Your task to perform on an android device: Open Amazon Image 0: 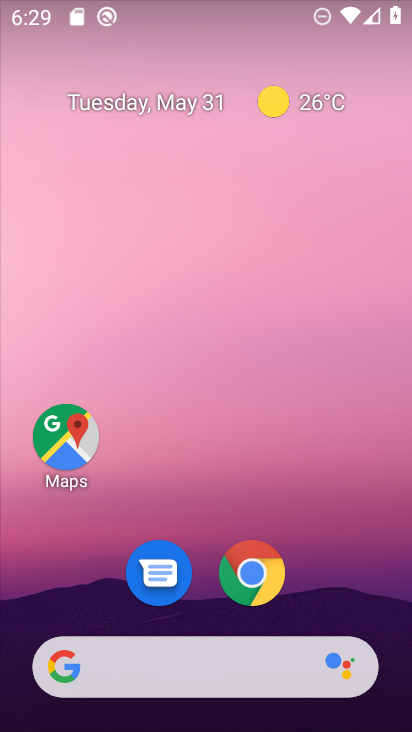
Step 0: drag from (398, 614) to (352, 6)
Your task to perform on an android device: Open Amazon Image 1: 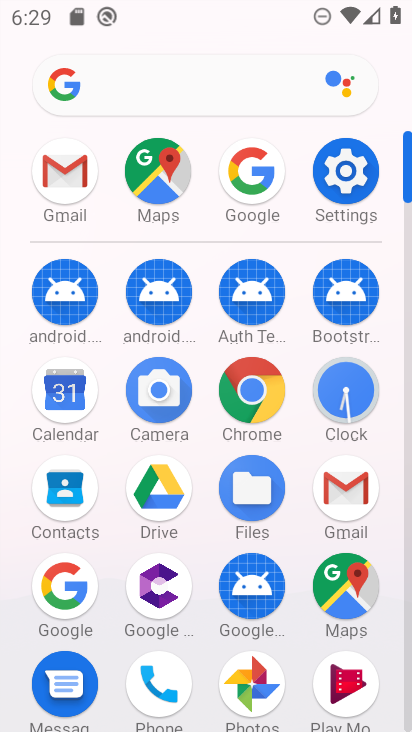
Step 1: click (41, 588)
Your task to perform on an android device: Open Amazon Image 2: 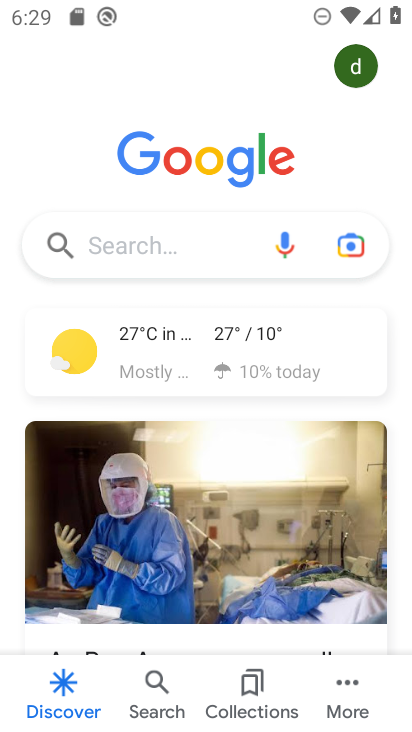
Step 2: click (172, 241)
Your task to perform on an android device: Open Amazon Image 3: 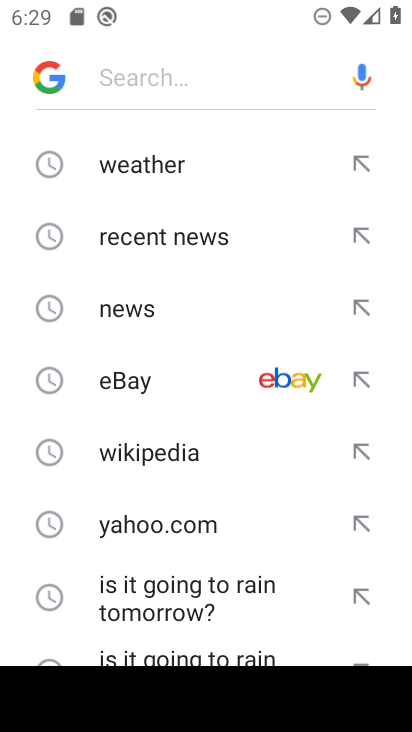
Step 3: drag from (154, 601) to (175, 126)
Your task to perform on an android device: Open Amazon Image 4: 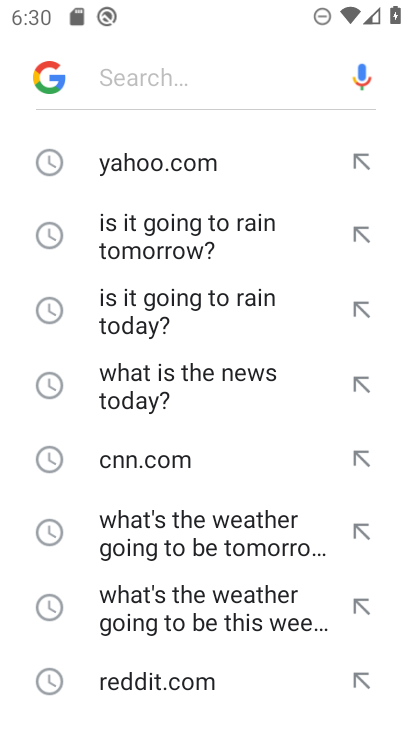
Step 4: drag from (130, 616) to (182, 119)
Your task to perform on an android device: Open Amazon Image 5: 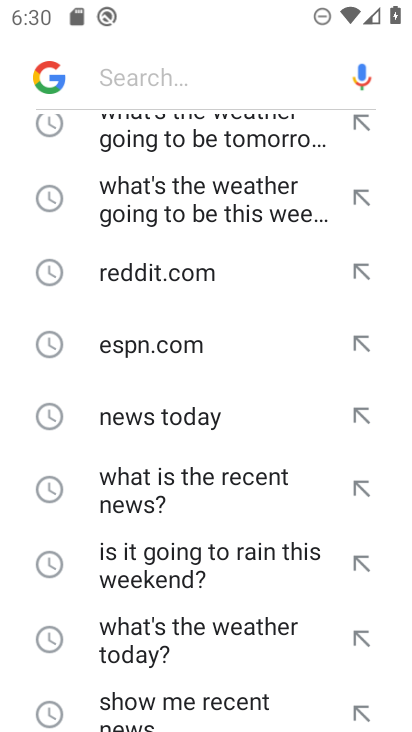
Step 5: drag from (170, 625) to (198, 93)
Your task to perform on an android device: Open Amazon Image 6: 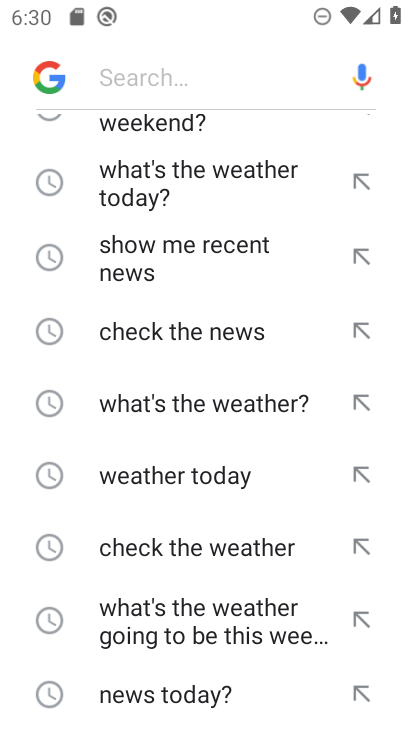
Step 6: drag from (176, 658) to (242, 135)
Your task to perform on an android device: Open Amazon Image 7: 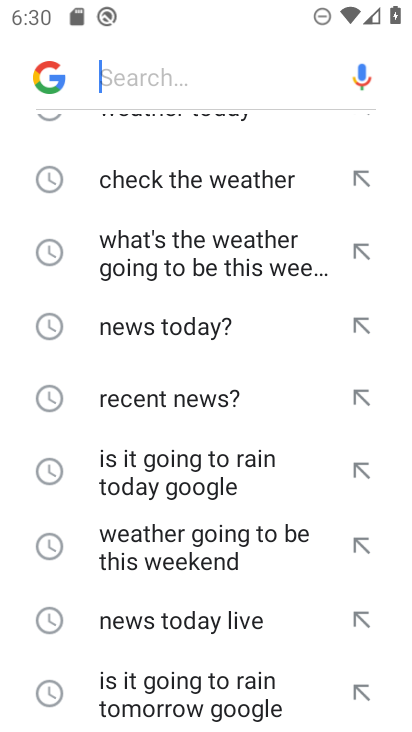
Step 7: drag from (188, 643) to (172, 141)
Your task to perform on an android device: Open Amazon Image 8: 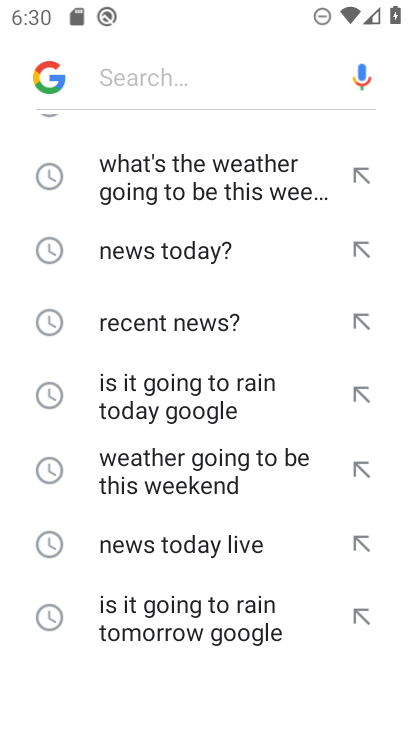
Step 8: type "amazon"
Your task to perform on an android device: Open Amazon Image 9: 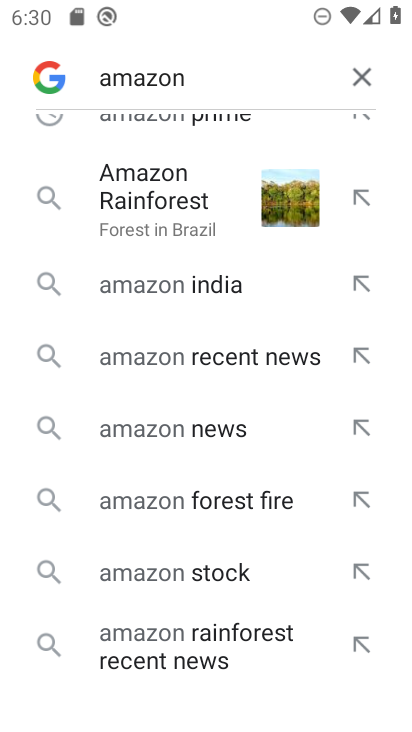
Step 9: drag from (139, 167) to (175, 656)
Your task to perform on an android device: Open Amazon Image 10: 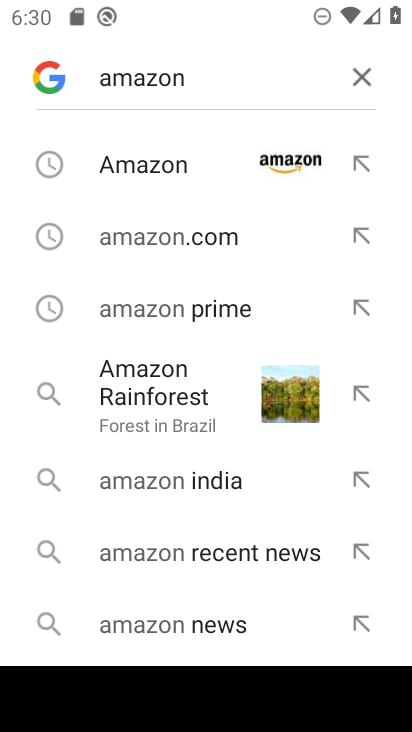
Step 10: click (201, 162)
Your task to perform on an android device: Open Amazon Image 11: 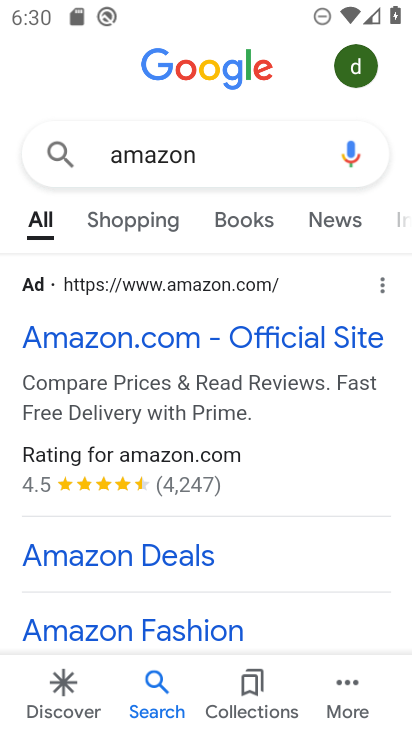
Step 11: task complete